Your task to perform on an android device: Show me popular videos on Youtube Image 0: 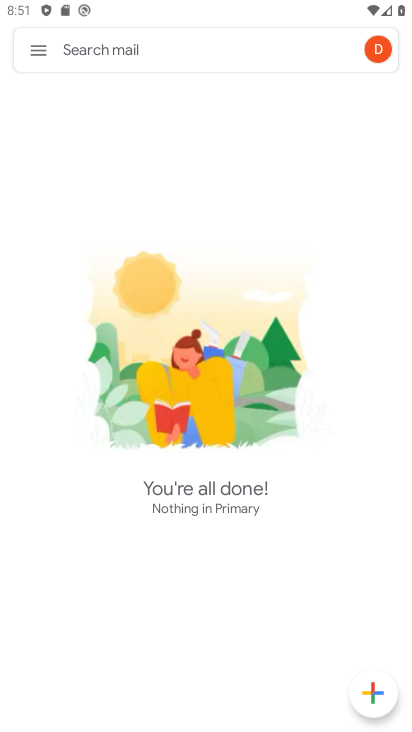
Step 0: press home button
Your task to perform on an android device: Show me popular videos on Youtube Image 1: 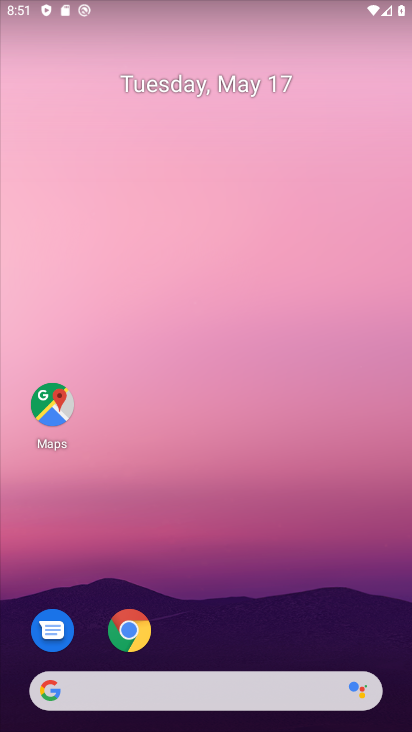
Step 1: drag from (360, 641) to (374, 31)
Your task to perform on an android device: Show me popular videos on Youtube Image 2: 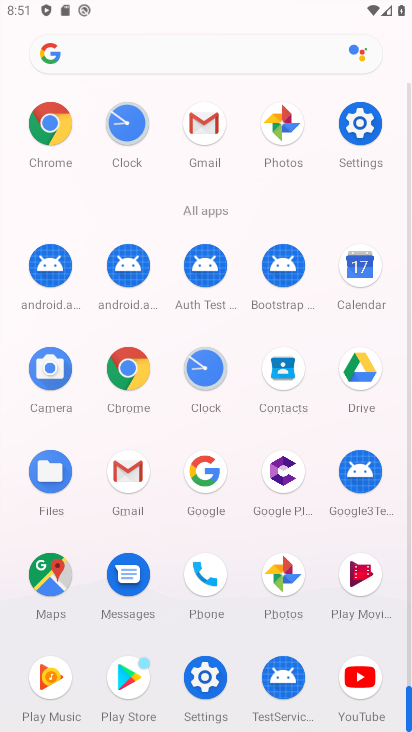
Step 2: click (359, 679)
Your task to perform on an android device: Show me popular videos on Youtube Image 3: 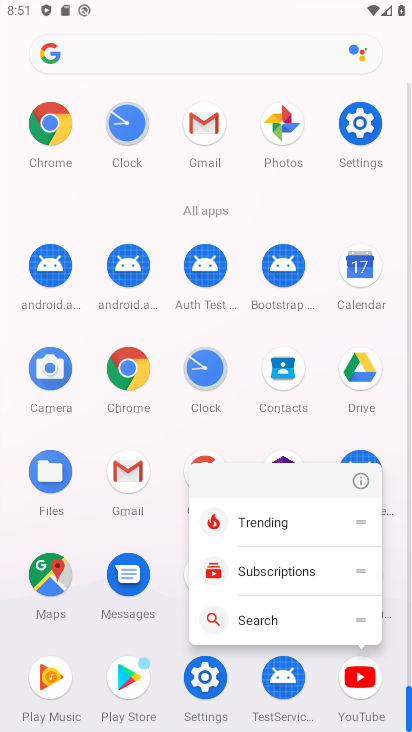
Step 3: click (359, 679)
Your task to perform on an android device: Show me popular videos on Youtube Image 4: 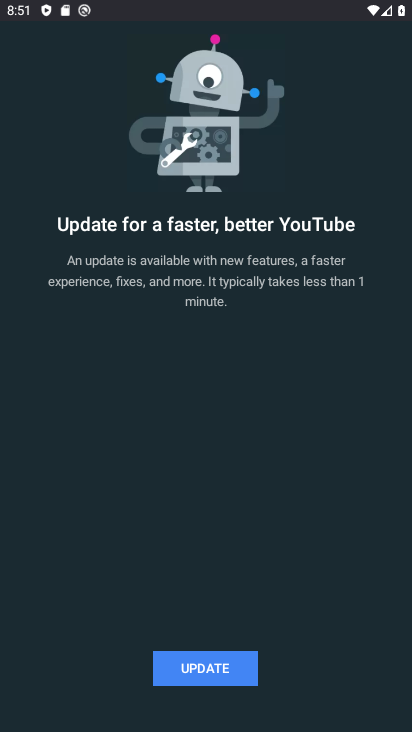
Step 4: click (203, 676)
Your task to perform on an android device: Show me popular videos on Youtube Image 5: 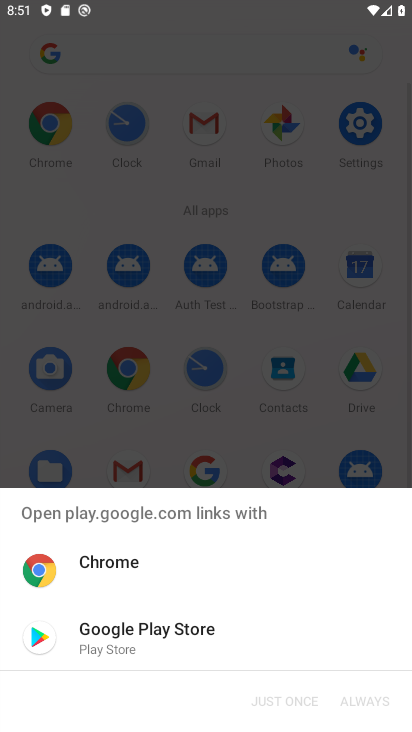
Step 5: click (139, 634)
Your task to perform on an android device: Show me popular videos on Youtube Image 6: 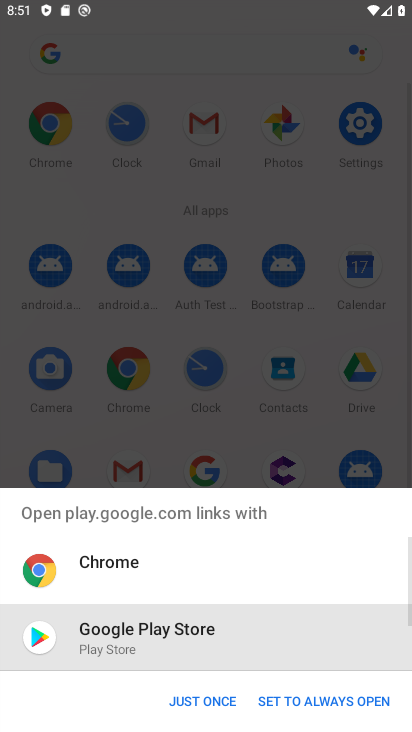
Step 6: click (207, 696)
Your task to perform on an android device: Show me popular videos on Youtube Image 7: 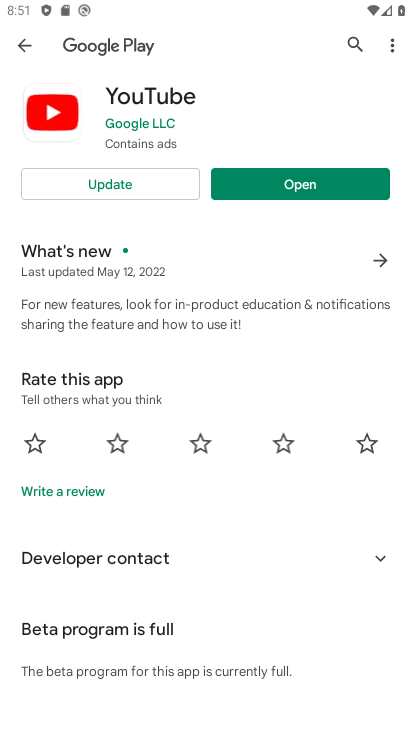
Step 7: click (129, 178)
Your task to perform on an android device: Show me popular videos on Youtube Image 8: 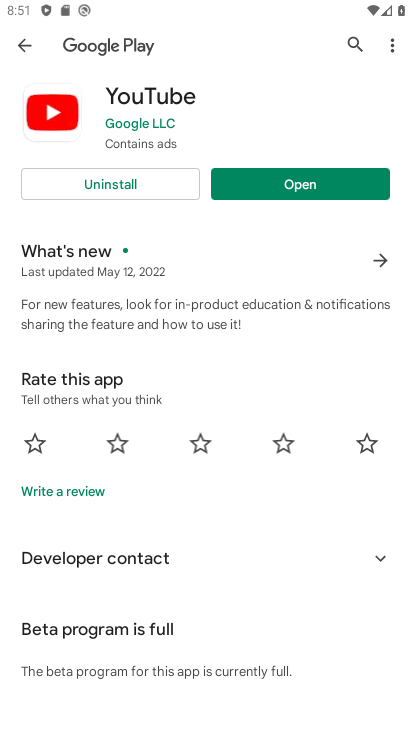
Step 8: click (283, 181)
Your task to perform on an android device: Show me popular videos on Youtube Image 9: 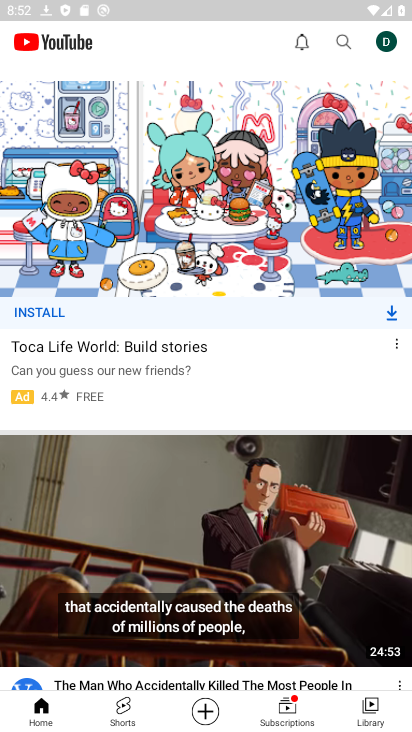
Step 9: task complete